Your task to perform on an android device: Go to notification settings Image 0: 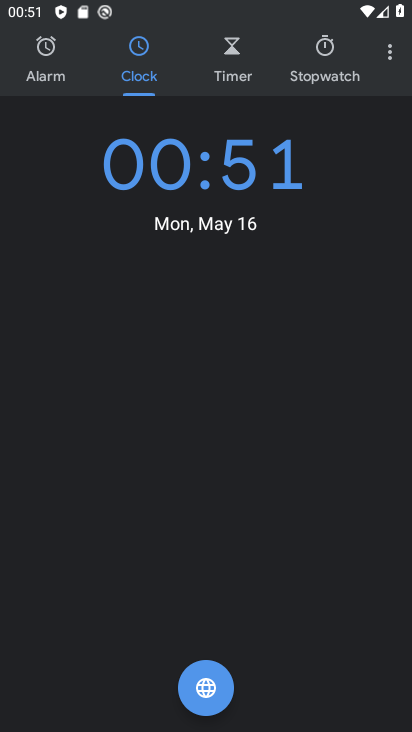
Step 0: press home button
Your task to perform on an android device: Go to notification settings Image 1: 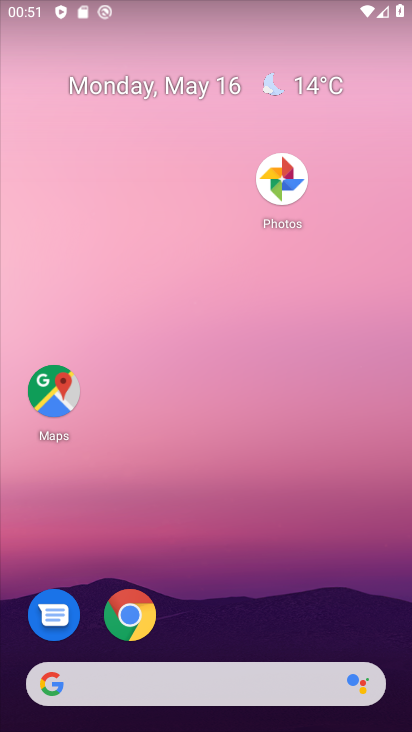
Step 1: drag from (332, 631) to (331, 56)
Your task to perform on an android device: Go to notification settings Image 2: 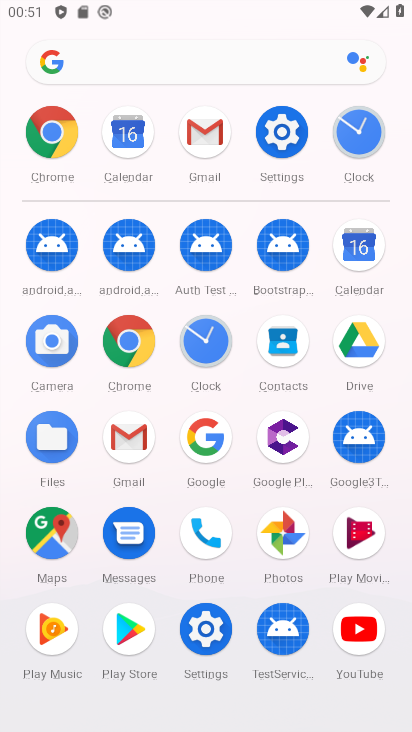
Step 2: click (222, 632)
Your task to perform on an android device: Go to notification settings Image 3: 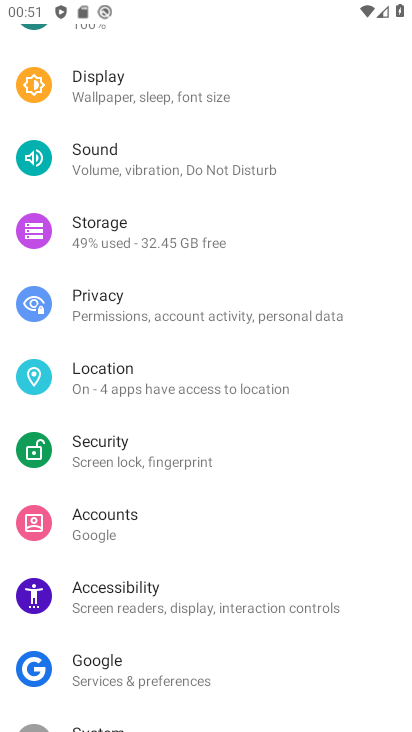
Step 3: drag from (220, 150) to (192, 431)
Your task to perform on an android device: Go to notification settings Image 4: 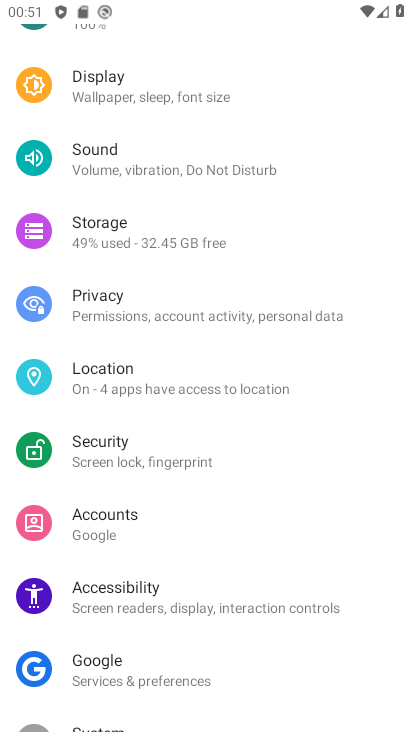
Step 4: drag from (231, 169) to (256, 587)
Your task to perform on an android device: Go to notification settings Image 5: 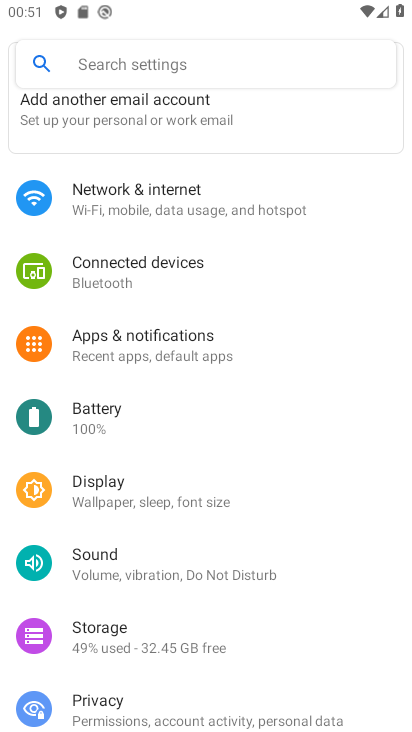
Step 5: click (140, 349)
Your task to perform on an android device: Go to notification settings Image 6: 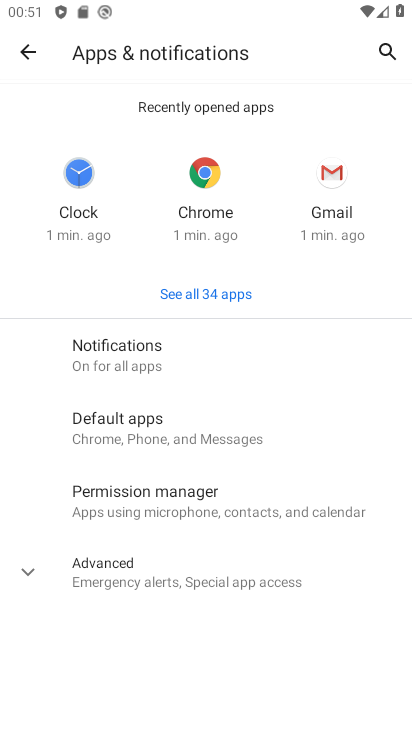
Step 6: click (135, 354)
Your task to perform on an android device: Go to notification settings Image 7: 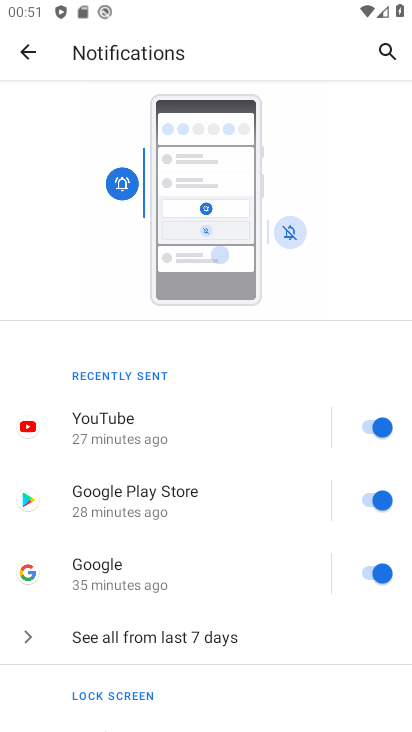
Step 7: drag from (260, 682) to (260, 520)
Your task to perform on an android device: Go to notification settings Image 8: 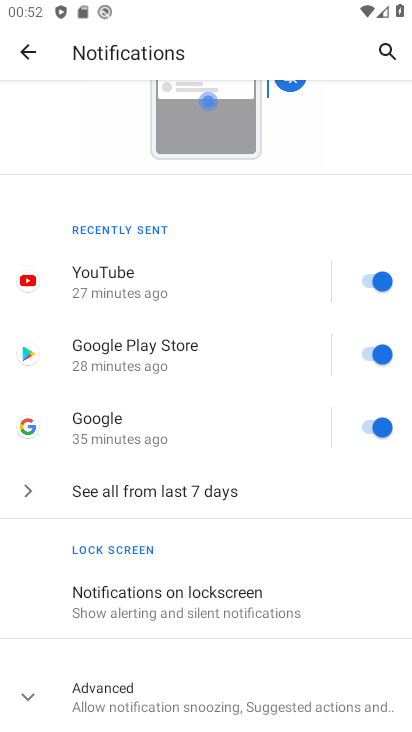
Step 8: drag from (225, 677) to (239, 433)
Your task to perform on an android device: Go to notification settings Image 9: 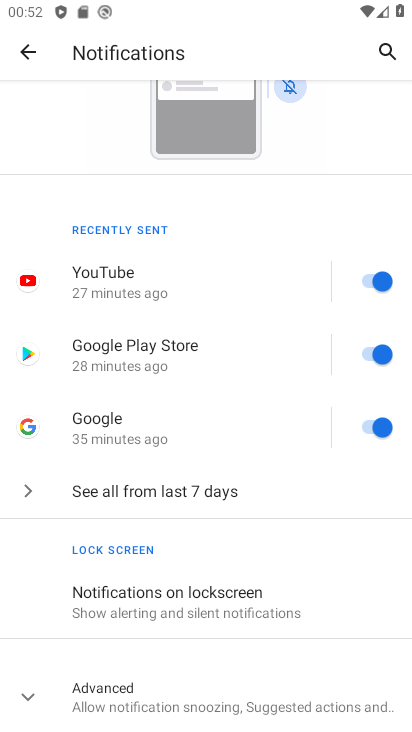
Step 9: click (193, 698)
Your task to perform on an android device: Go to notification settings Image 10: 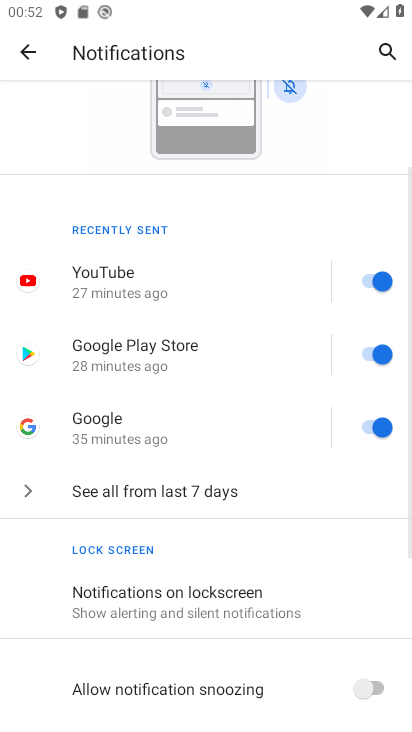
Step 10: drag from (192, 699) to (215, 337)
Your task to perform on an android device: Go to notification settings Image 11: 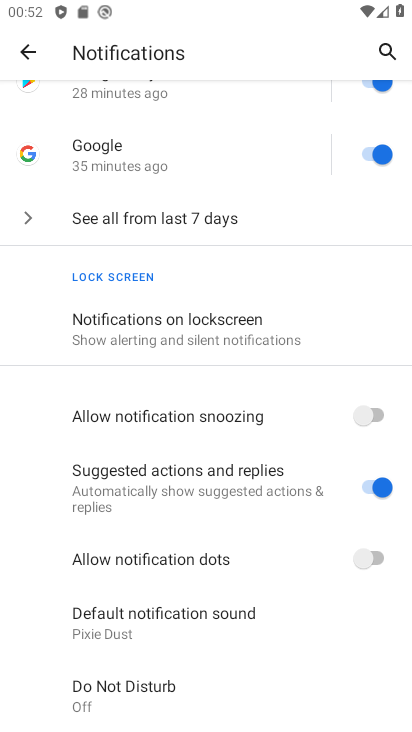
Step 11: drag from (273, 183) to (254, 502)
Your task to perform on an android device: Go to notification settings Image 12: 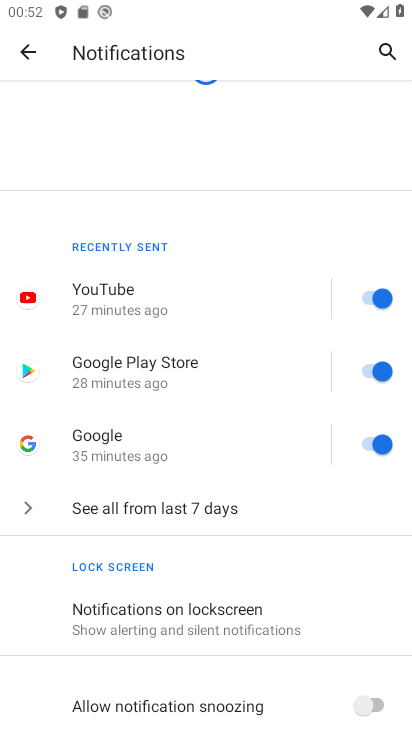
Step 12: click (374, 374)
Your task to perform on an android device: Go to notification settings Image 13: 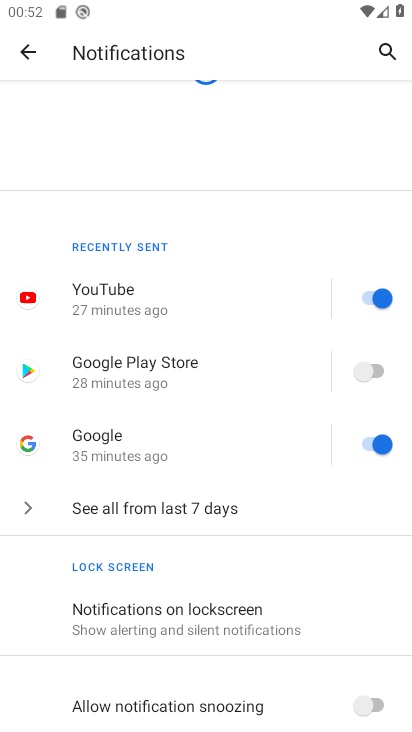
Step 13: task complete